Your task to perform on an android device: Go to display settings Image 0: 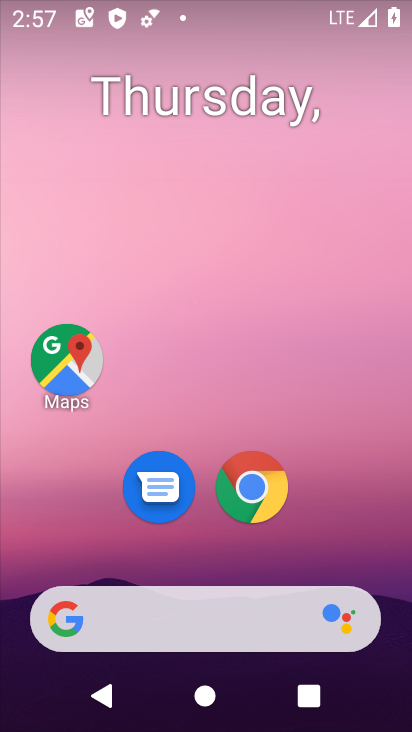
Step 0: drag from (365, 469) to (286, 53)
Your task to perform on an android device: Go to display settings Image 1: 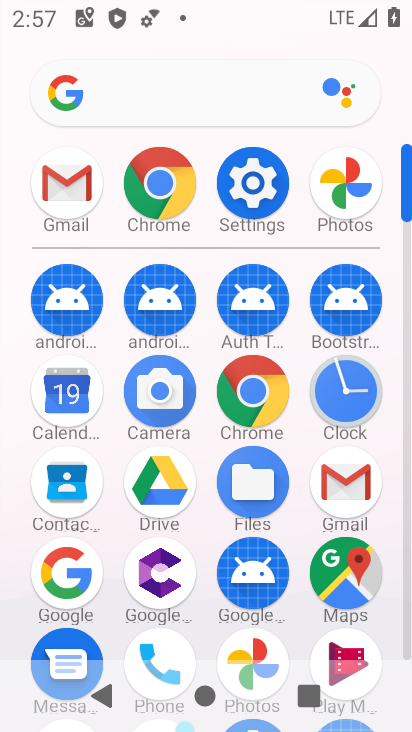
Step 1: click (243, 172)
Your task to perform on an android device: Go to display settings Image 2: 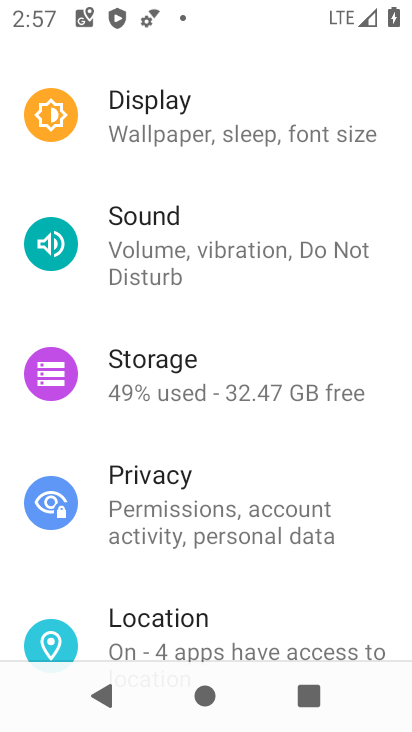
Step 2: click (204, 133)
Your task to perform on an android device: Go to display settings Image 3: 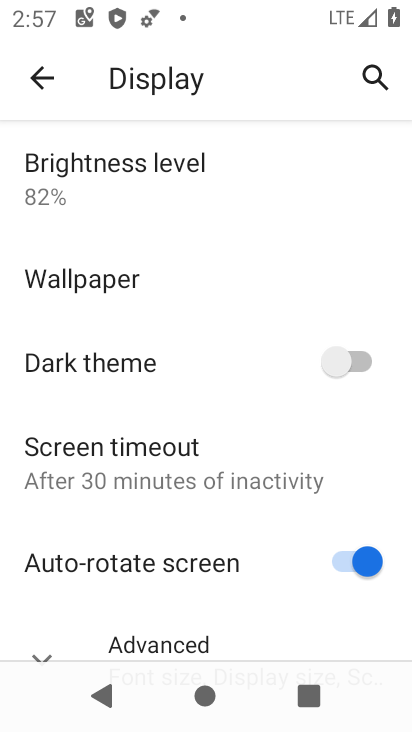
Step 3: task complete